Your task to perform on an android device: open app "NewsBreak: Local News & Alerts" Image 0: 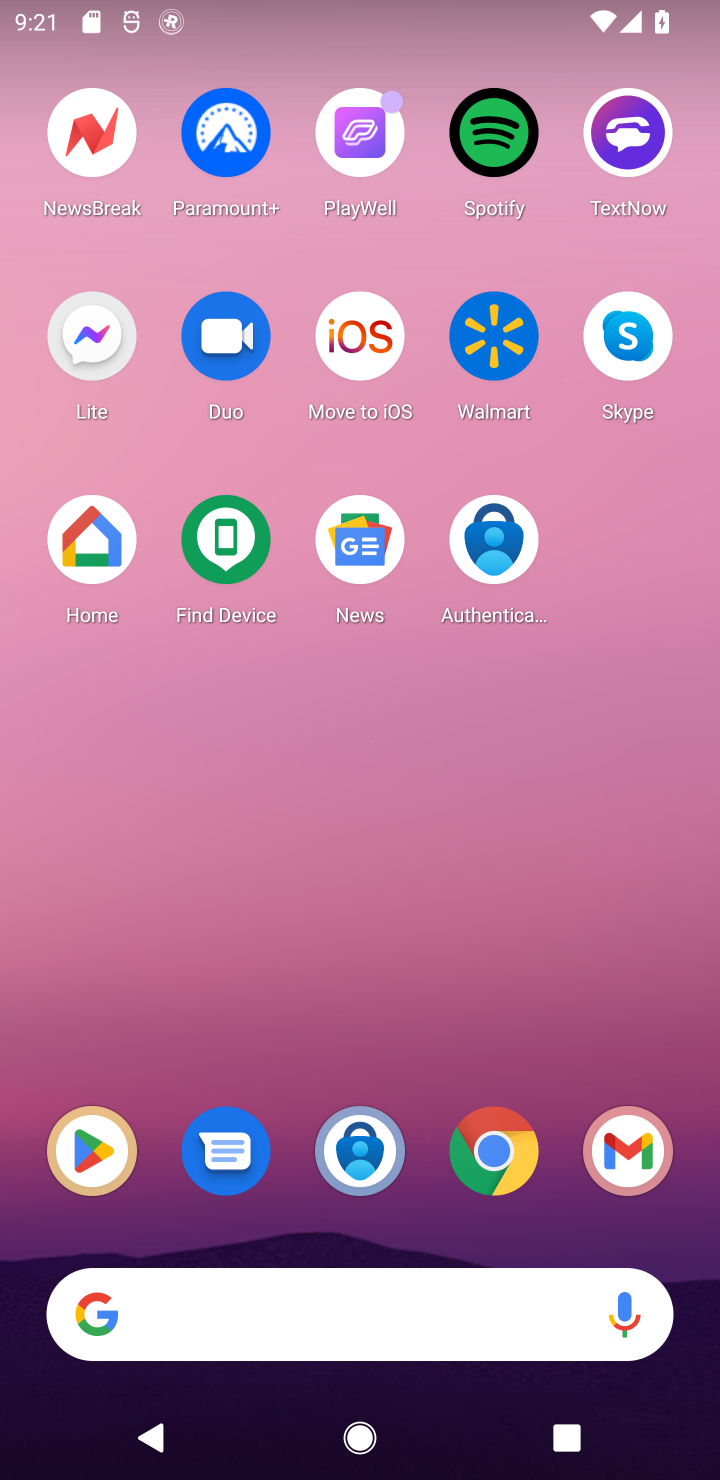
Step 0: click (101, 1149)
Your task to perform on an android device: open app "NewsBreak: Local News & Alerts" Image 1: 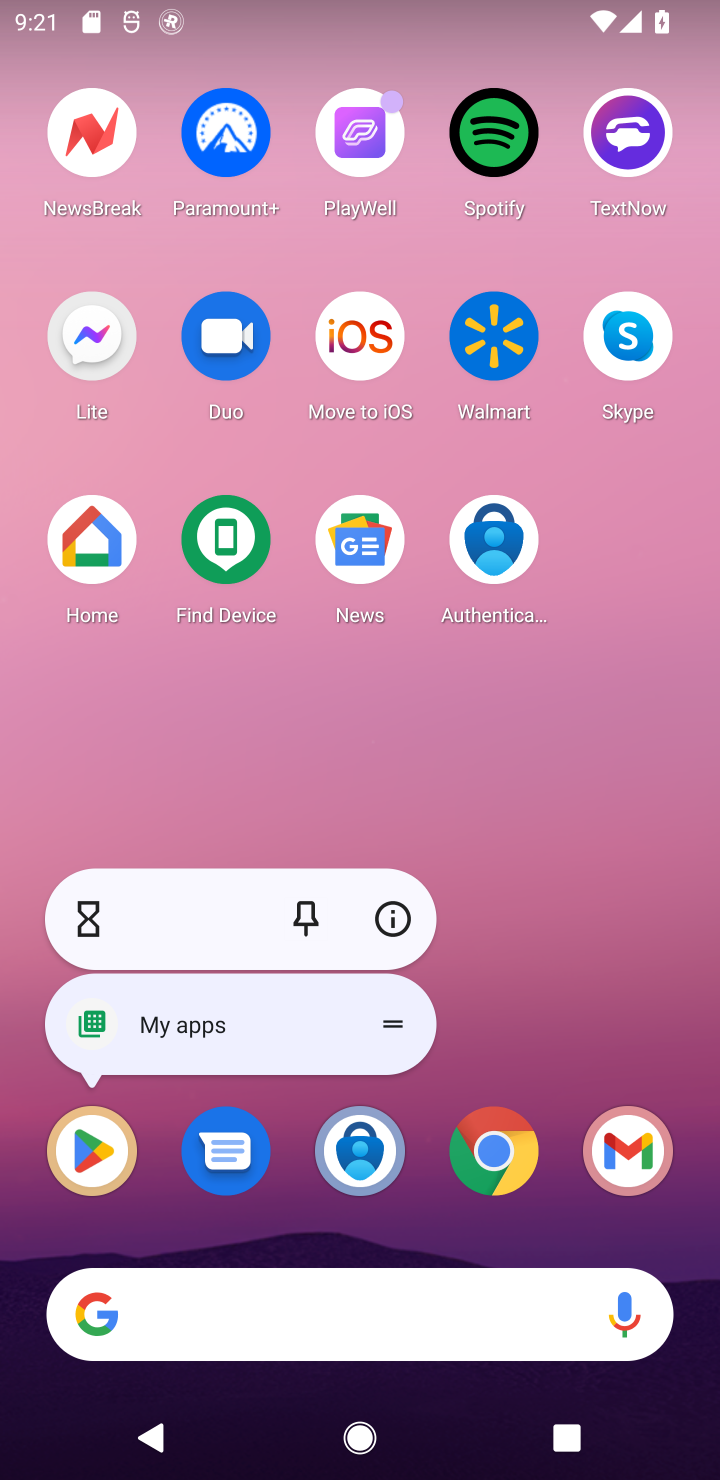
Step 1: click (101, 1149)
Your task to perform on an android device: open app "NewsBreak: Local News & Alerts" Image 2: 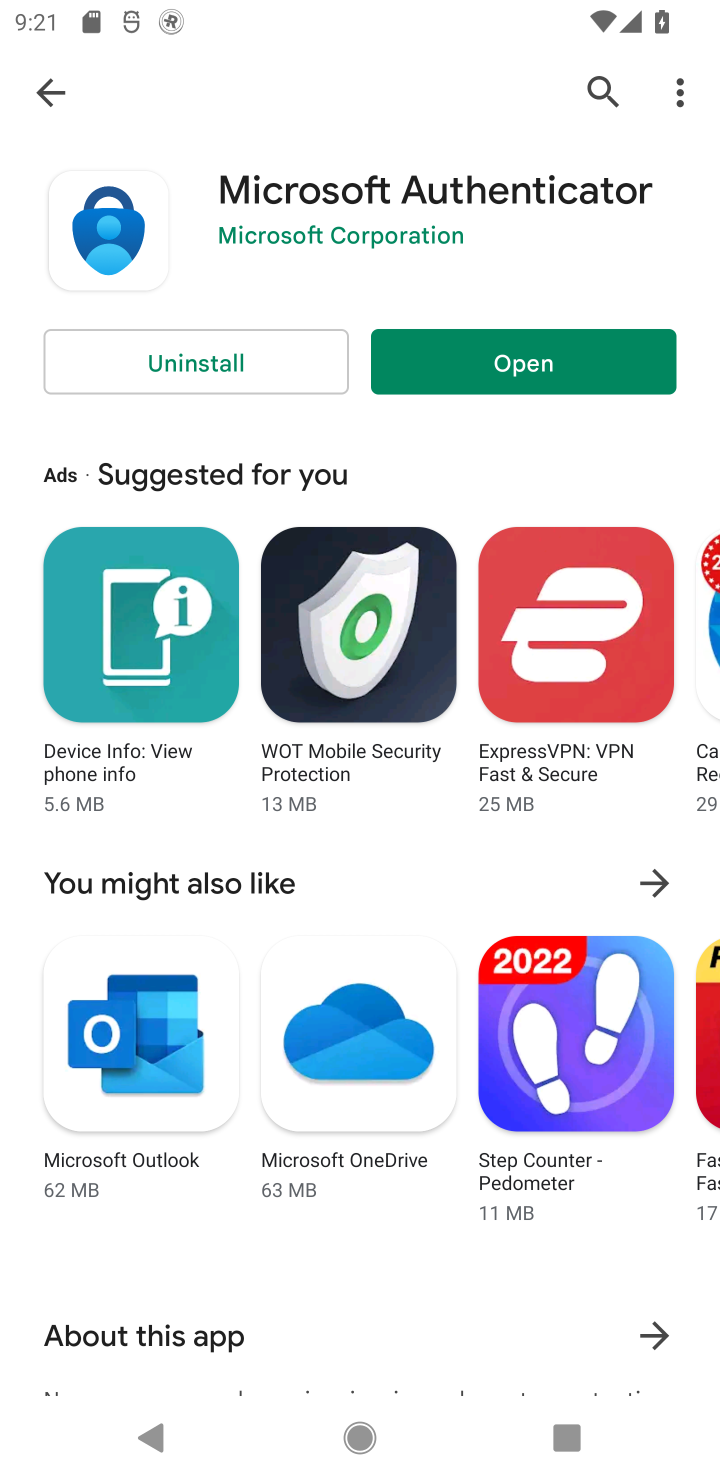
Step 2: click (595, 87)
Your task to perform on an android device: open app "NewsBreak: Local News & Alerts" Image 3: 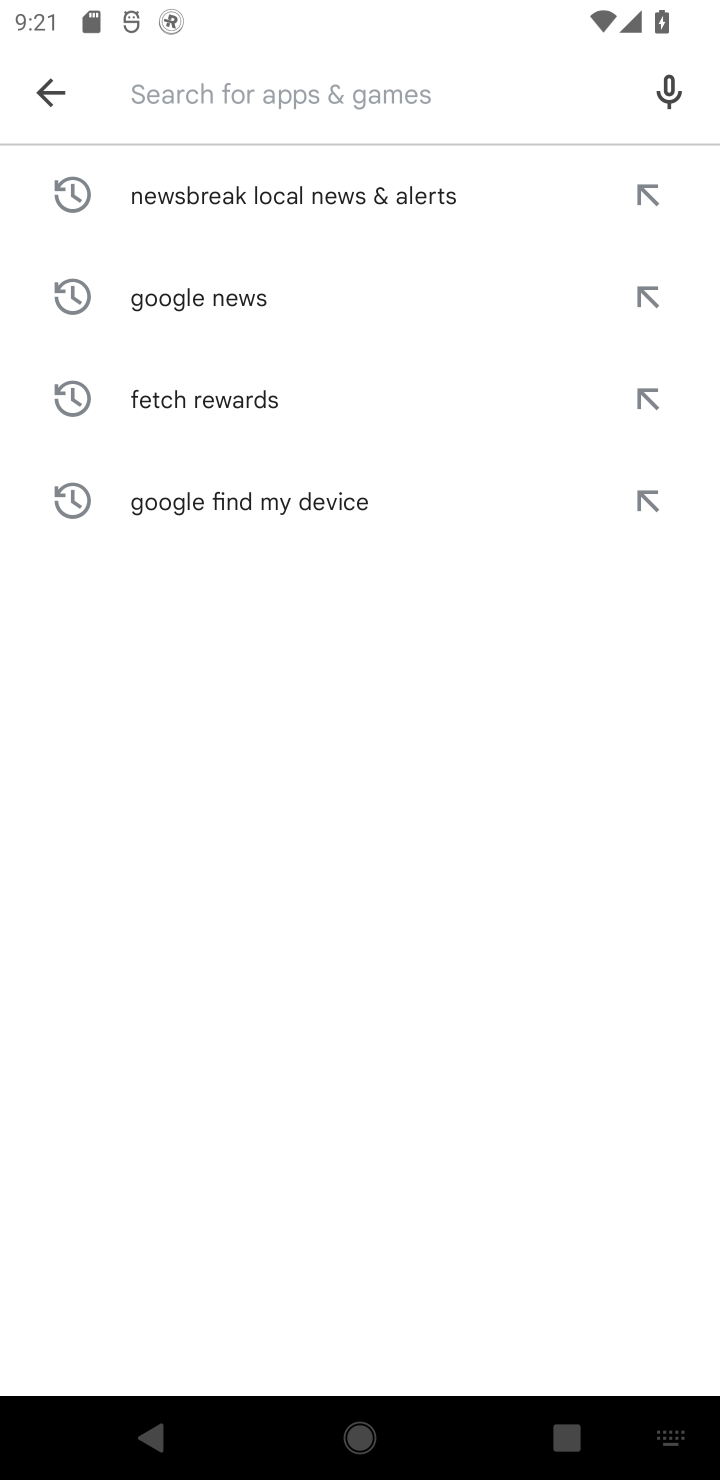
Step 3: type "NewsBreak: Local News & Alerts"
Your task to perform on an android device: open app "NewsBreak: Local News & Alerts" Image 4: 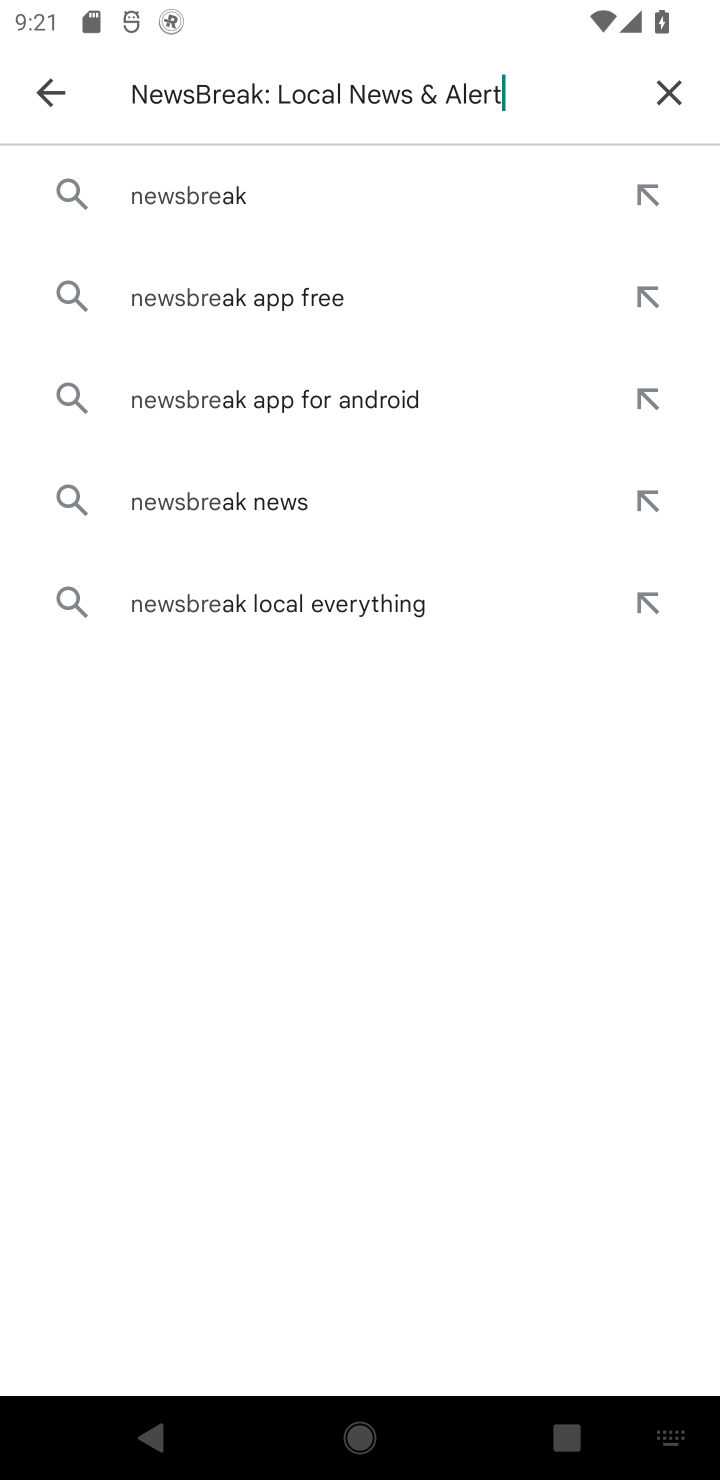
Step 4: type ""
Your task to perform on an android device: open app "NewsBreak: Local News & Alerts" Image 5: 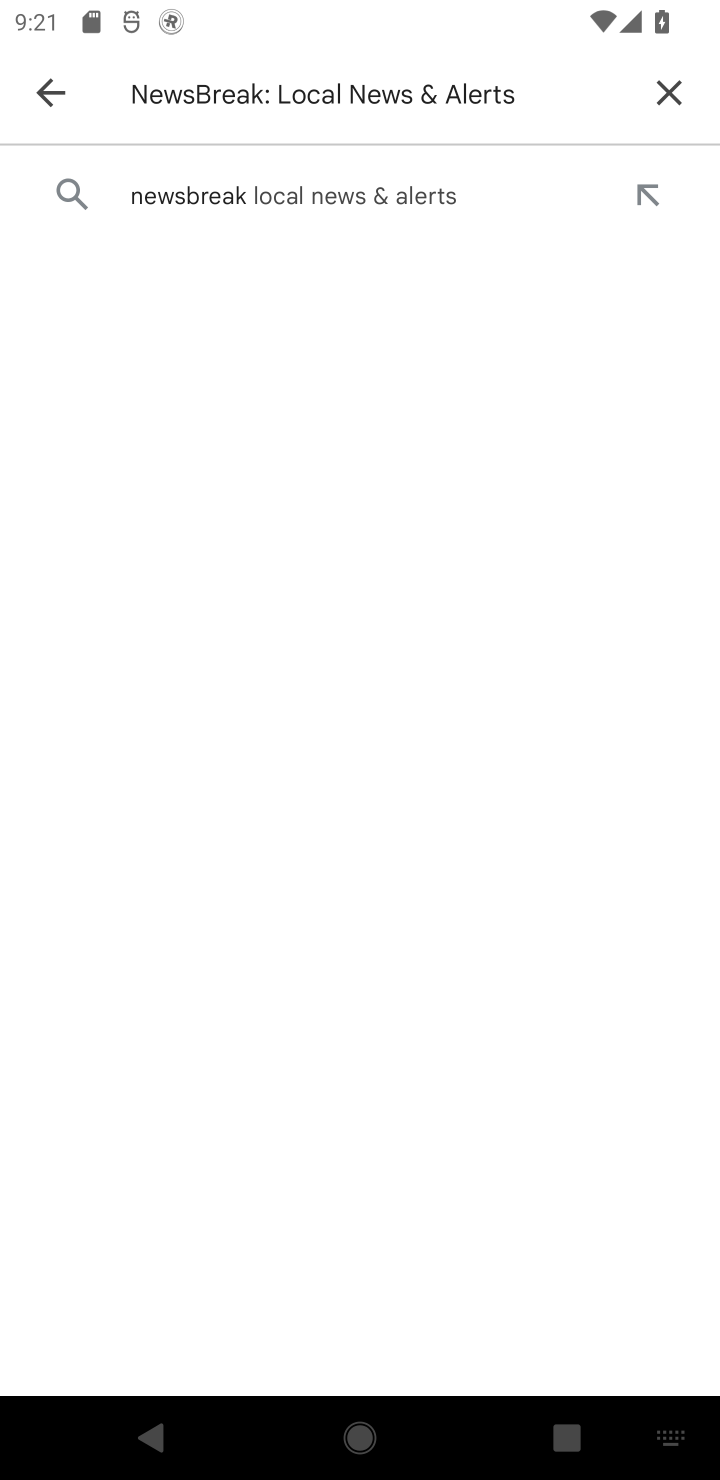
Step 5: click (207, 189)
Your task to perform on an android device: open app "NewsBreak: Local News & Alerts" Image 6: 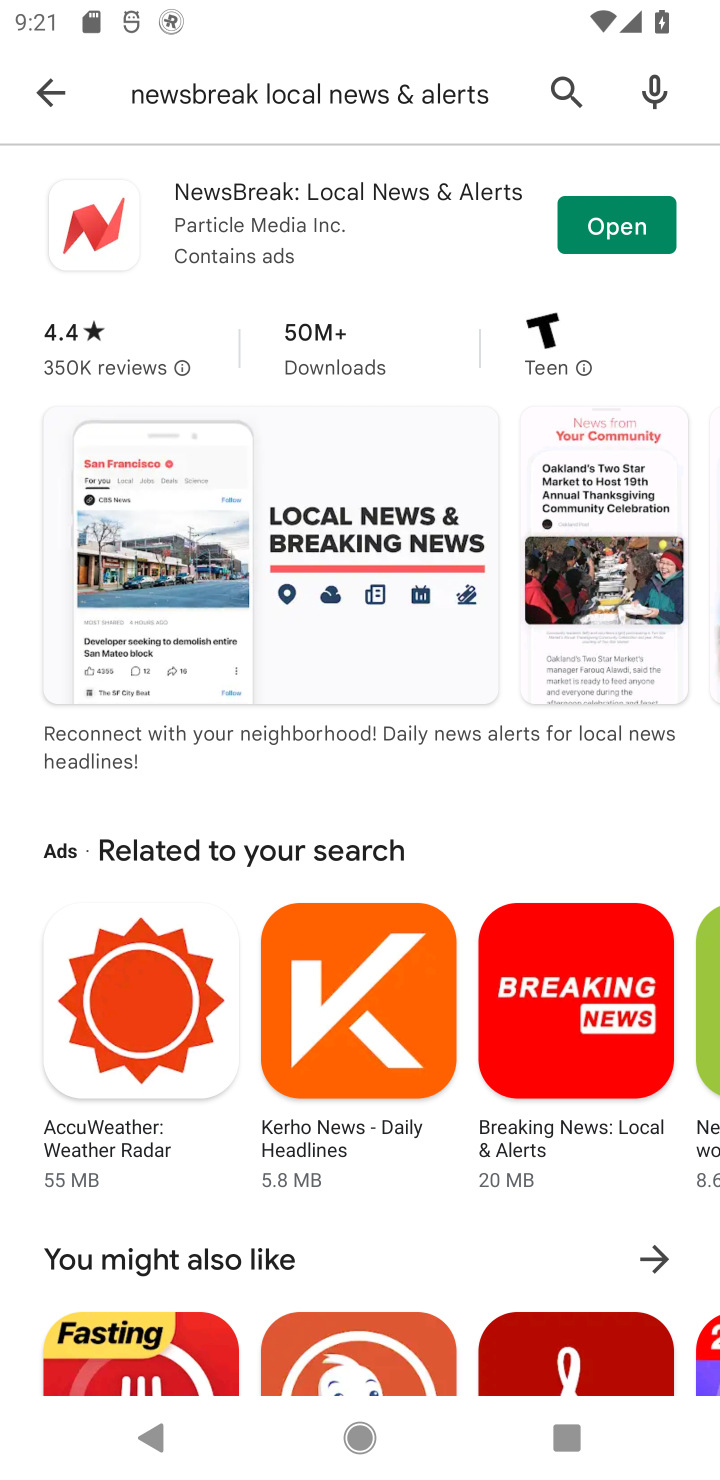
Step 6: click (615, 226)
Your task to perform on an android device: open app "NewsBreak: Local News & Alerts" Image 7: 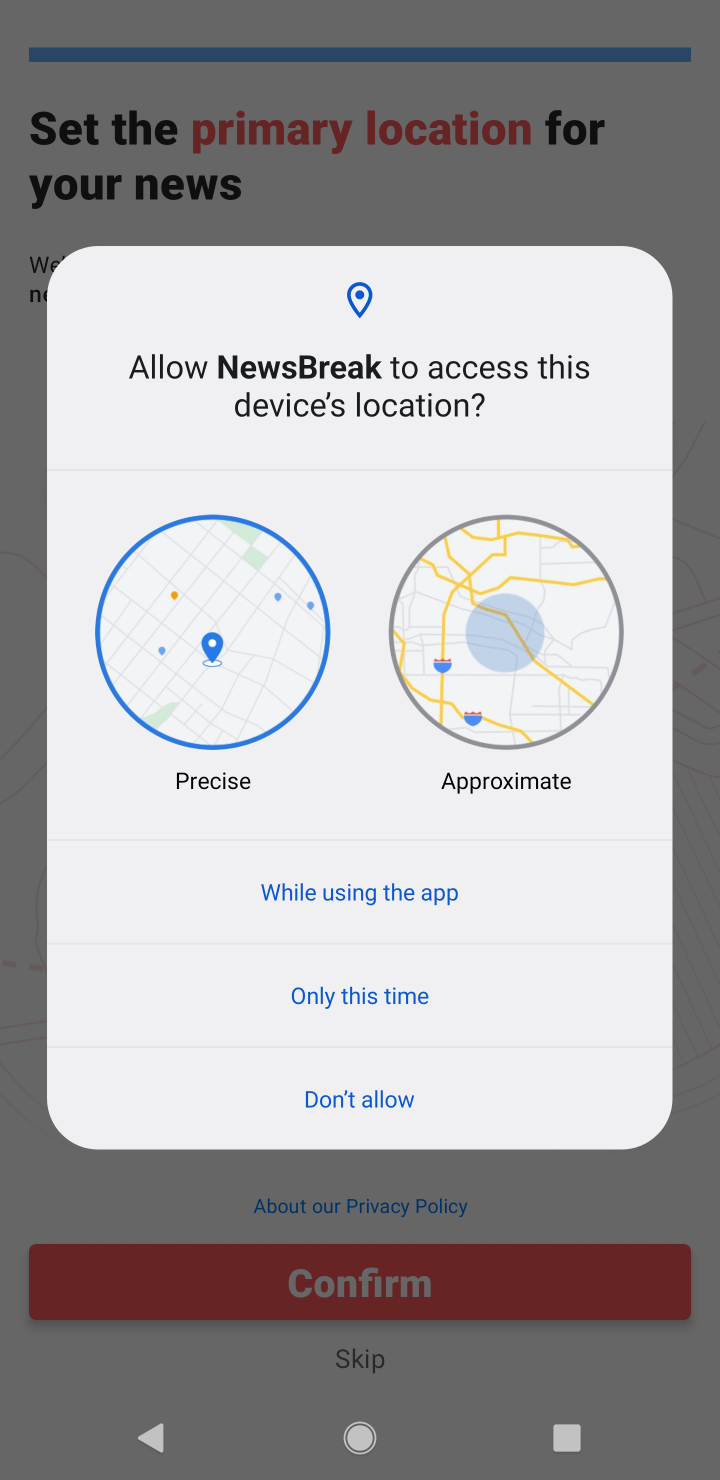
Step 7: task complete